Your task to perform on an android device: toggle pop-ups in chrome Image 0: 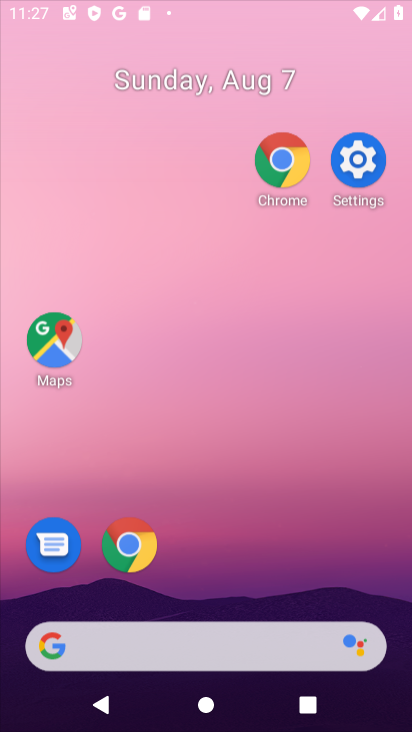
Step 0: drag from (168, 161) to (223, 202)
Your task to perform on an android device: toggle pop-ups in chrome Image 1: 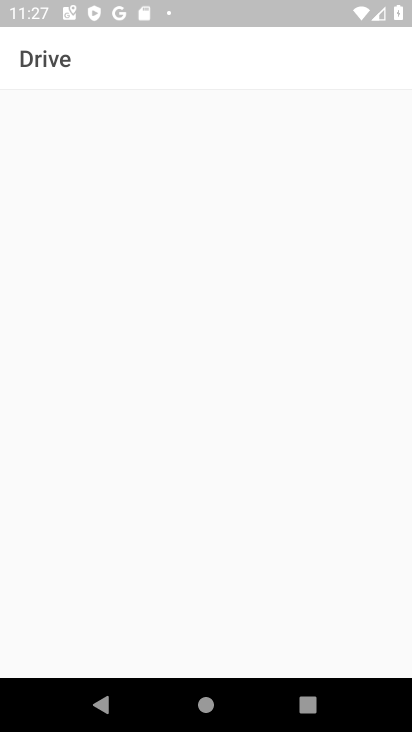
Step 1: press back button
Your task to perform on an android device: toggle pop-ups in chrome Image 2: 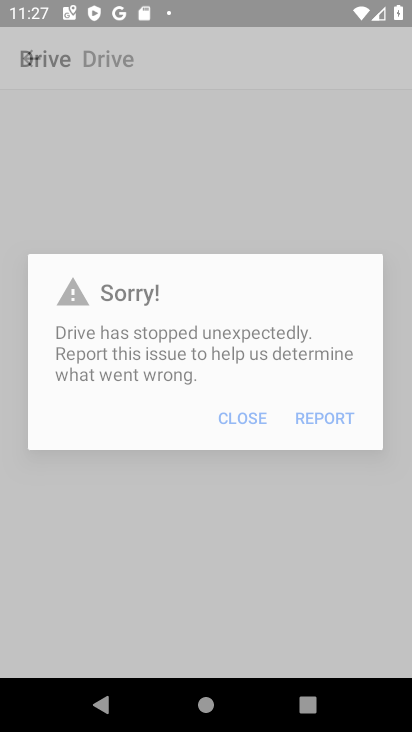
Step 2: press home button
Your task to perform on an android device: toggle pop-ups in chrome Image 3: 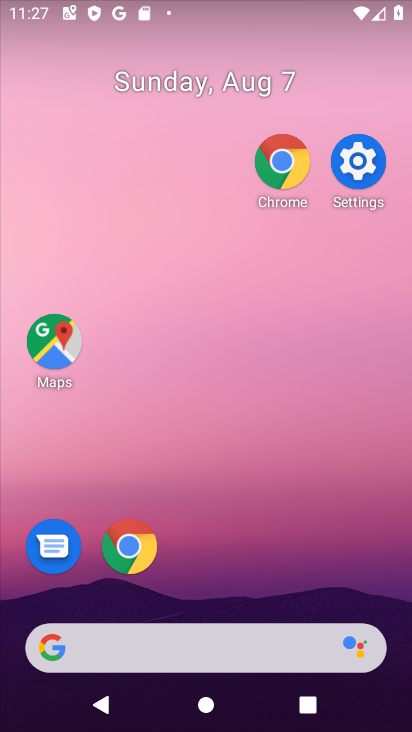
Step 3: drag from (244, 471) to (244, 181)
Your task to perform on an android device: toggle pop-ups in chrome Image 4: 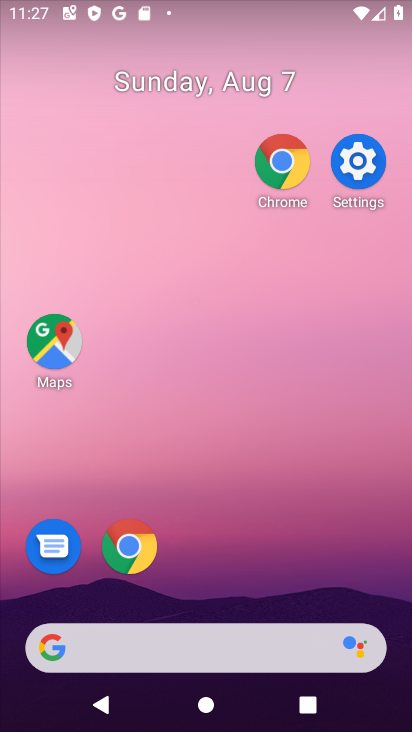
Step 4: drag from (286, 547) to (271, 301)
Your task to perform on an android device: toggle pop-ups in chrome Image 5: 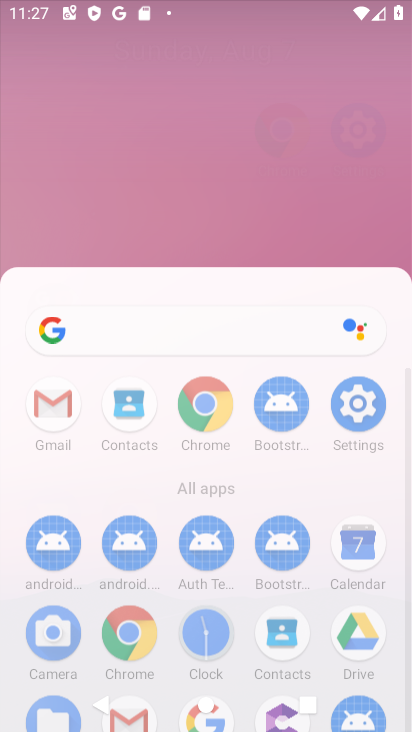
Step 5: drag from (220, 476) to (234, 226)
Your task to perform on an android device: toggle pop-ups in chrome Image 6: 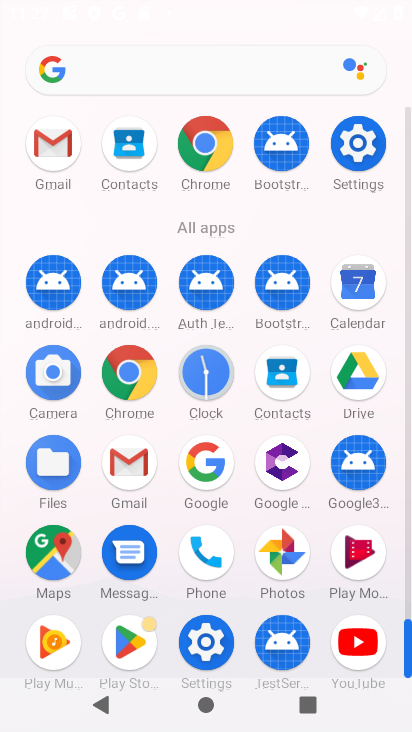
Step 6: click (200, 140)
Your task to perform on an android device: toggle pop-ups in chrome Image 7: 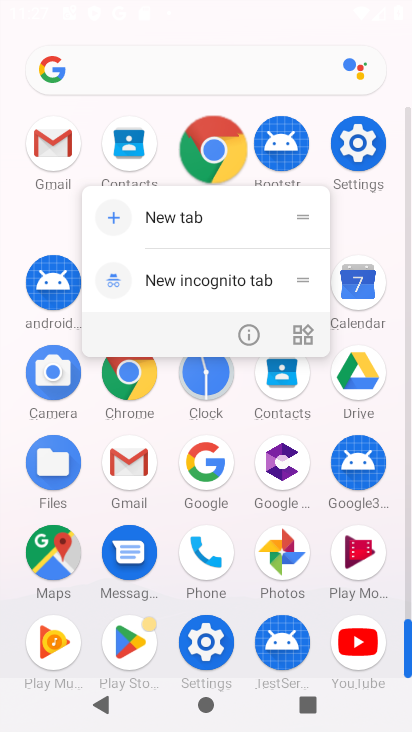
Step 7: click (209, 146)
Your task to perform on an android device: toggle pop-ups in chrome Image 8: 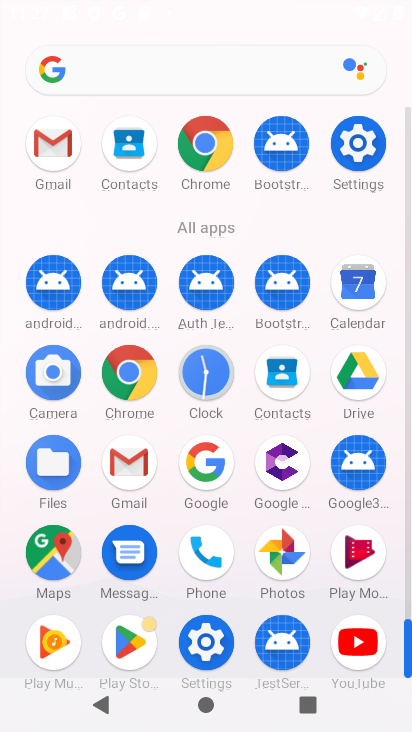
Step 8: click (206, 154)
Your task to perform on an android device: toggle pop-ups in chrome Image 9: 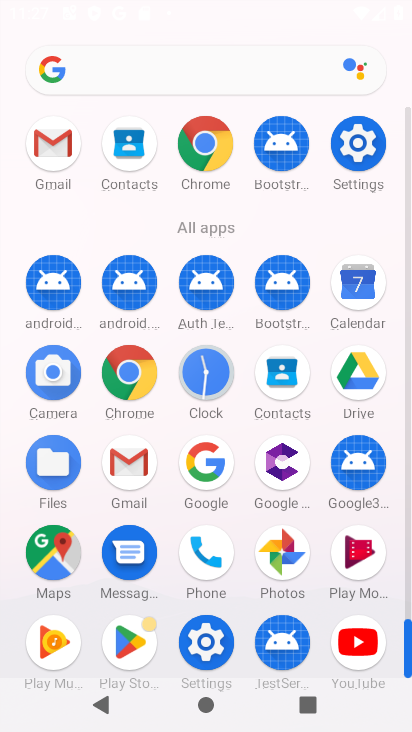
Step 9: click (206, 154)
Your task to perform on an android device: toggle pop-ups in chrome Image 10: 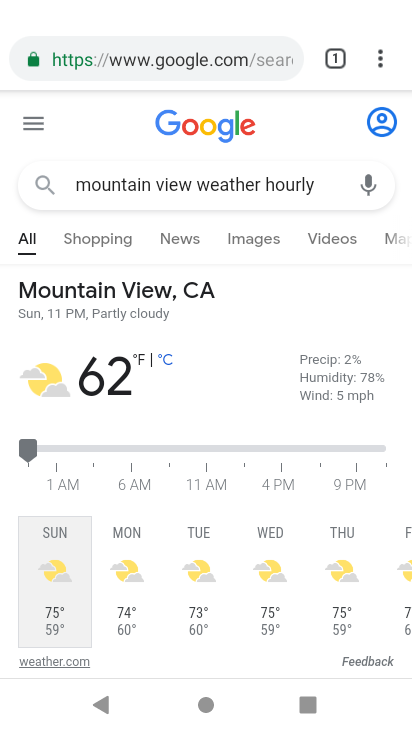
Step 10: drag from (382, 47) to (208, 638)
Your task to perform on an android device: toggle pop-ups in chrome Image 11: 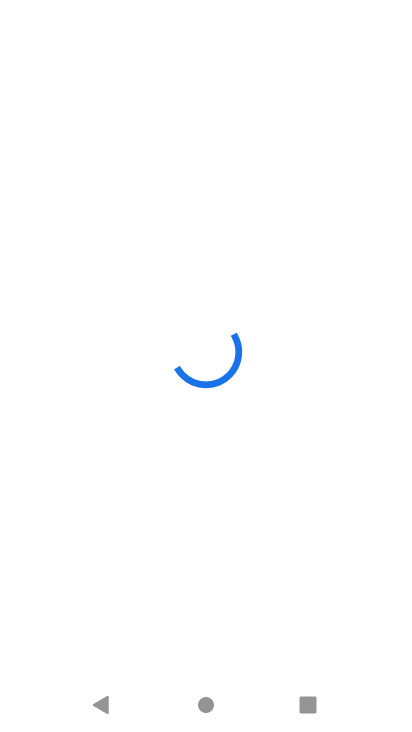
Step 11: drag from (382, 64) to (280, 317)
Your task to perform on an android device: toggle pop-ups in chrome Image 12: 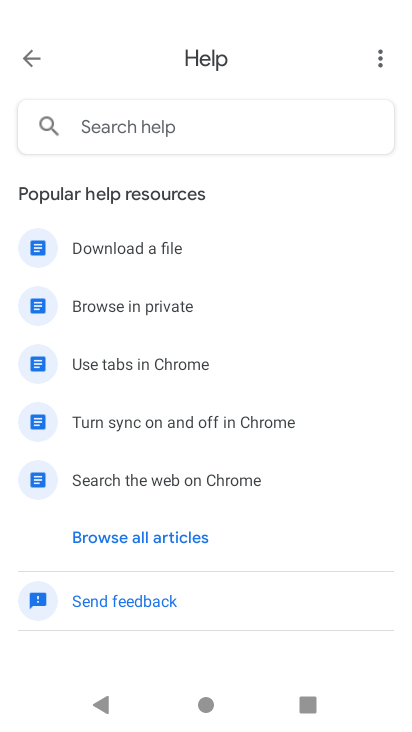
Step 12: click (34, 50)
Your task to perform on an android device: toggle pop-ups in chrome Image 13: 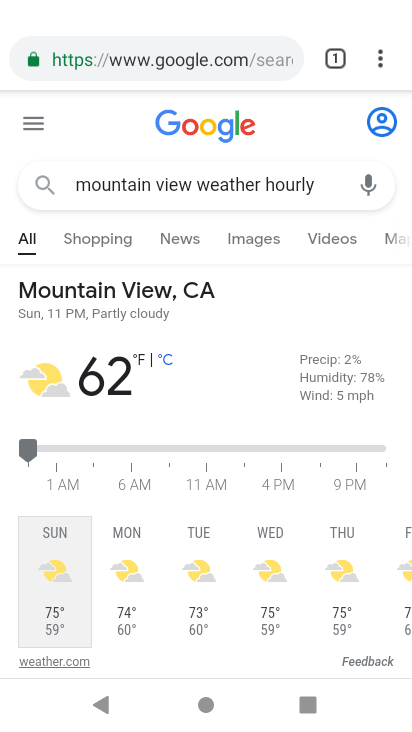
Step 13: drag from (376, 58) to (152, 574)
Your task to perform on an android device: toggle pop-ups in chrome Image 14: 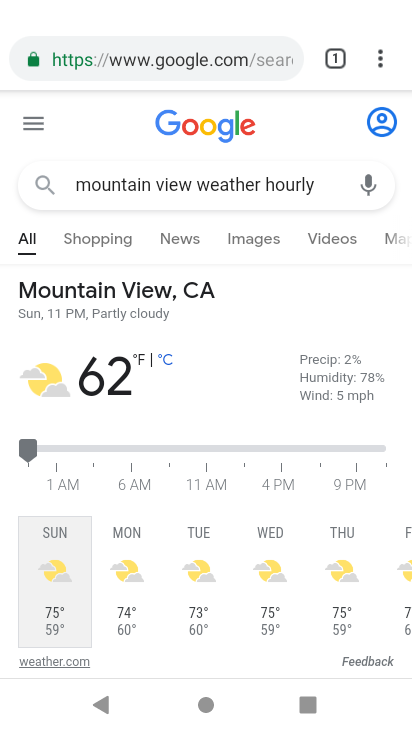
Step 14: click (166, 568)
Your task to perform on an android device: toggle pop-ups in chrome Image 15: 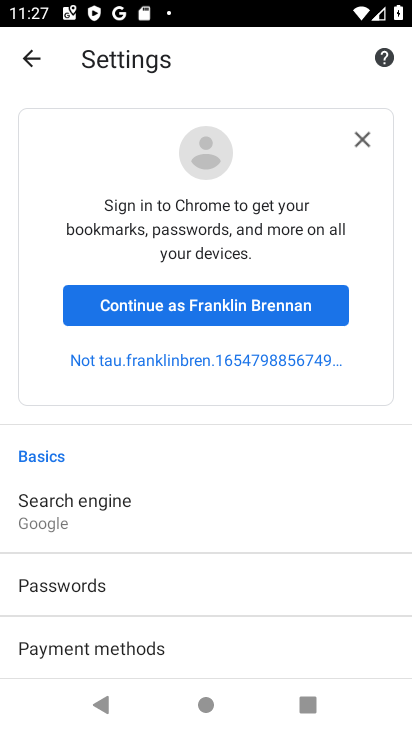
Step 15: drag from (187, 566) to (177, 256)
Your task to perform on an android device: toggle pop-ups in chrome Image 16: 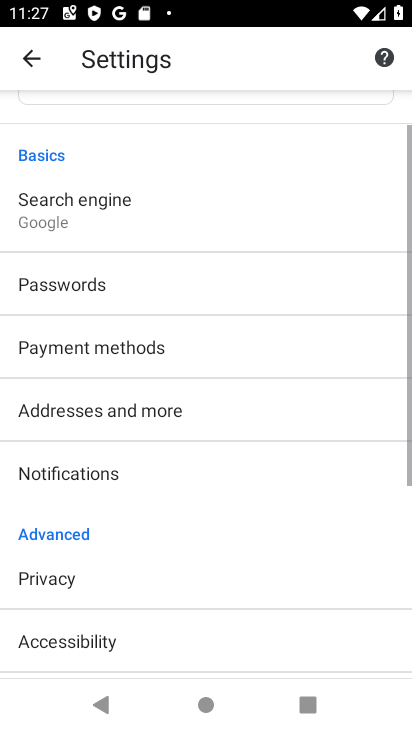
Step 16: drag from (130, 531) to (115, 277)
Your task to perform on an android device: toggle pop-ups in chrome Image 17: 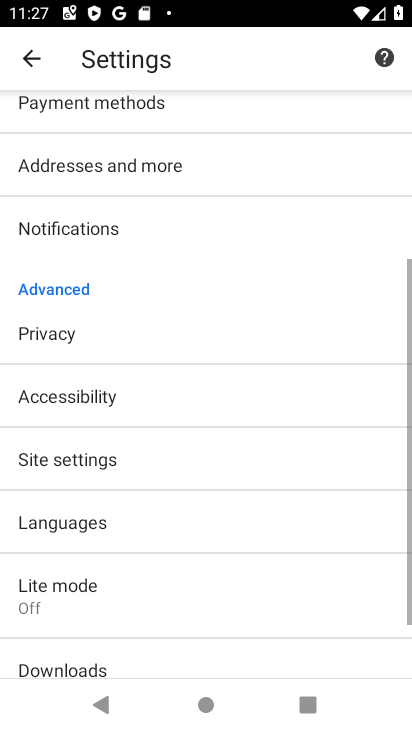
Step 17: drag from (191, 569) to (197, 324)
Your task to perform on an android device: toggle pop-ups in chrome Image 18: 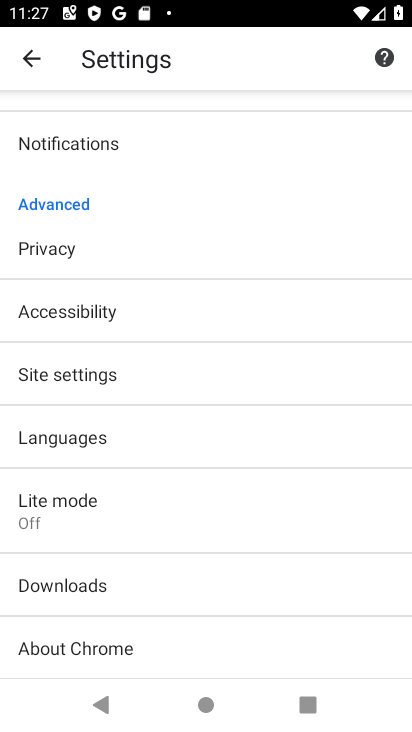
Step 18: click (55, 375)
Your task to perform on an android device: toggle pop-ups in chrome Image 19: 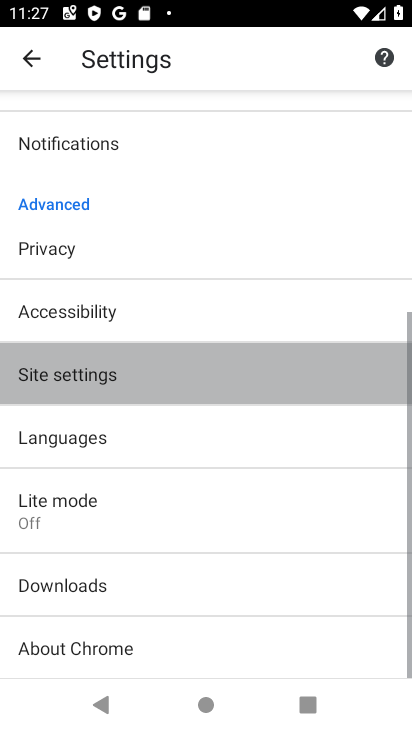
Step 19: click (55, 375)
Your task to perform on an android device: toggle pop-ups in chrome Image 20: 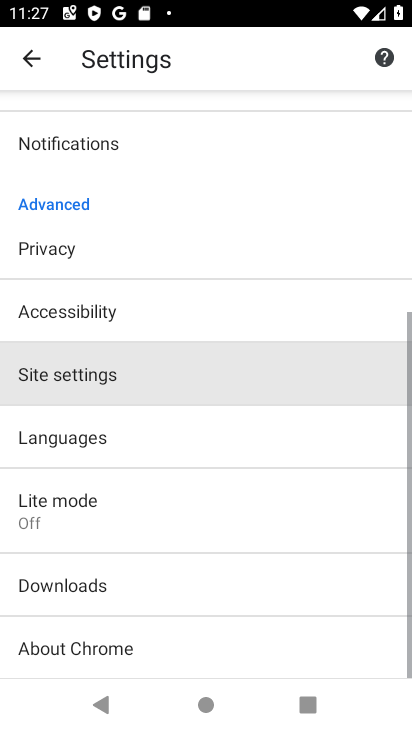
Step 20: click (55, 375)
Your task to perform on an android device: toggle pop-ups in chrome Image 21: 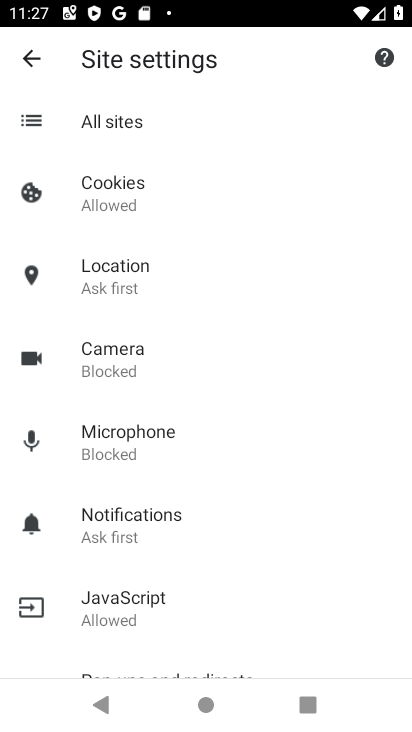
Step 21: drag from (136, 515) to (133, 180)
Your task to perform on an android device: toggle pop-ups in chrome Image 22: 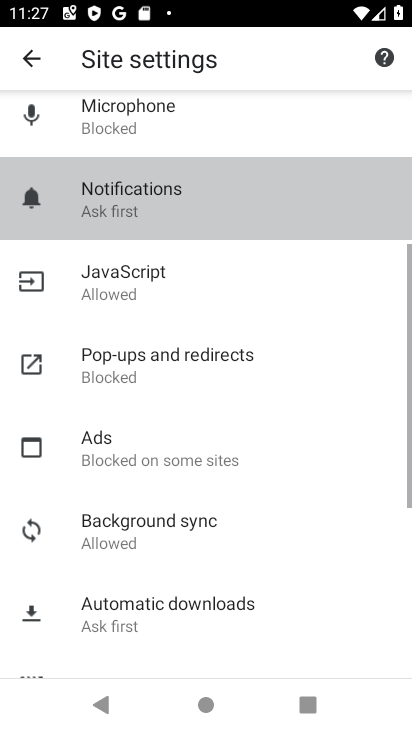
Step 22: drag from (129, 488) to (127, 372)
Your task to perform on an android device: toggle pop-ups in chrome Image 23: 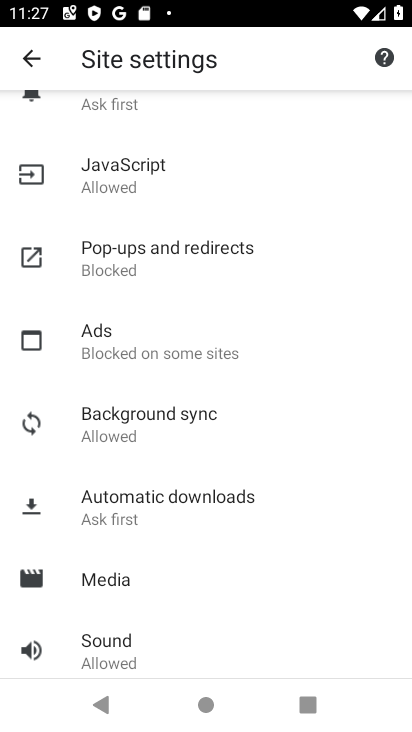
Step 23: click (86, 249)
Your task to perform on an android device: toggle pop-ups in chrome Image 24: 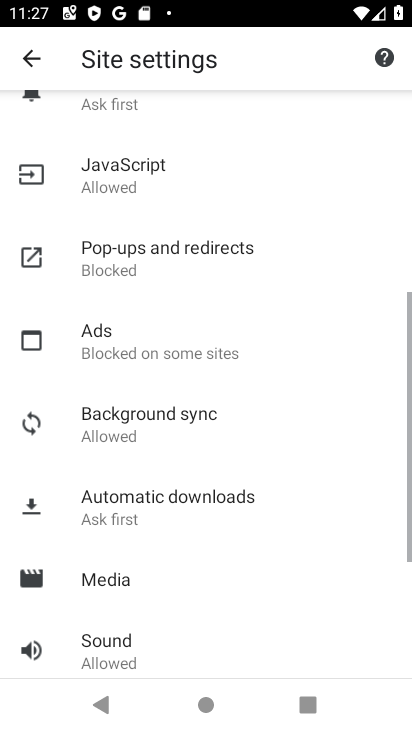
Step 24: click (97, 257)
Your task to perform on an android device: toggle pop-ups in chrome Image 25: 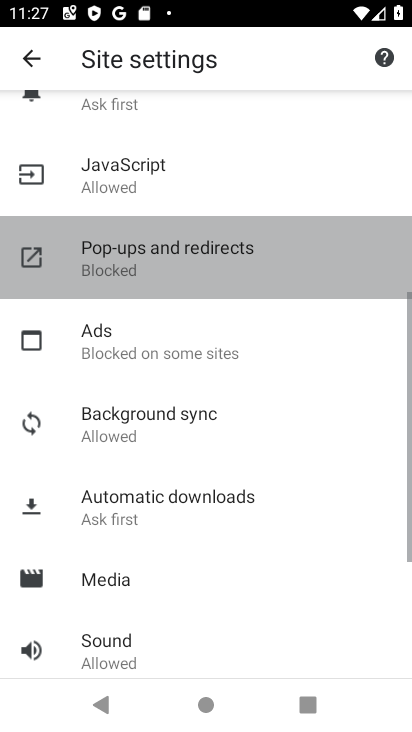
Step 25: click (103, 259)
Your task to perform on an android device: toggle pop-ups in chrome Image 26: 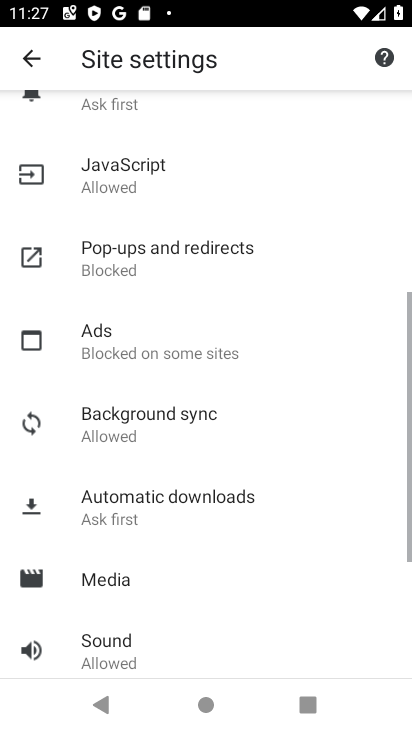
Step 26: click (113, 264)
Your task to perform on an android device: toggle pop-ups in chrome Image 27: 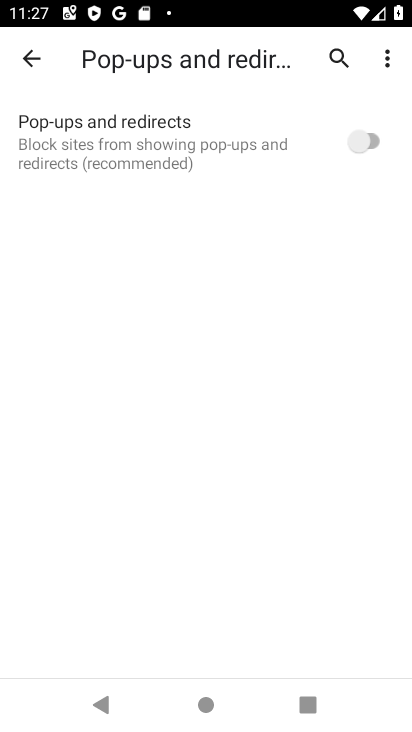
Step 27: click (355, 128)
Your task to perform on an android device: toggle pop-ups in chrome Image 28: 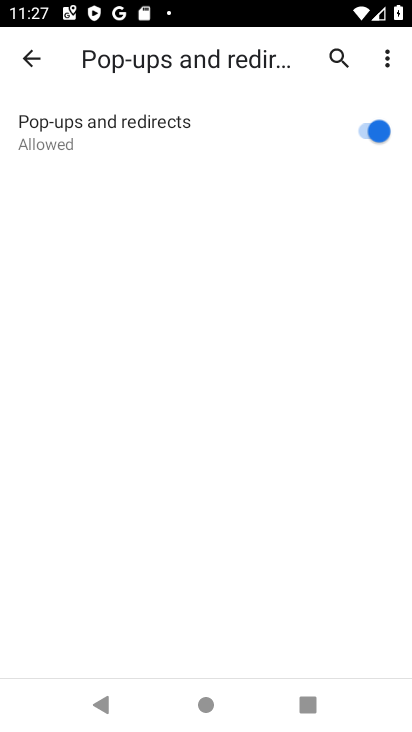
Step 28: task complete